Your task to perform on an android device: Show me popular games on the Play Store Image 0: 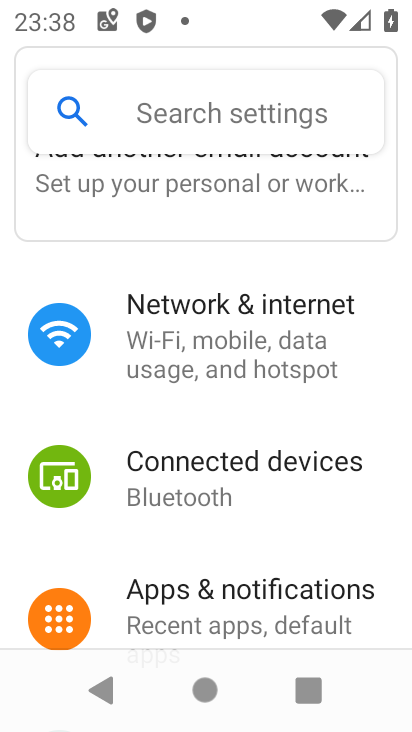
Step 0: task complete